Your task to perform on an android device: Go to network settings Image 0: 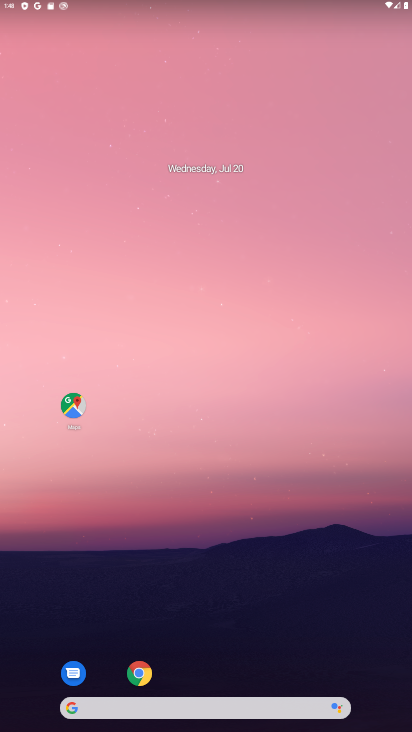
Step 0: drag from (188, 692) to (261, 157)
Your task to perform on an android device: Go to network settings Image 1: 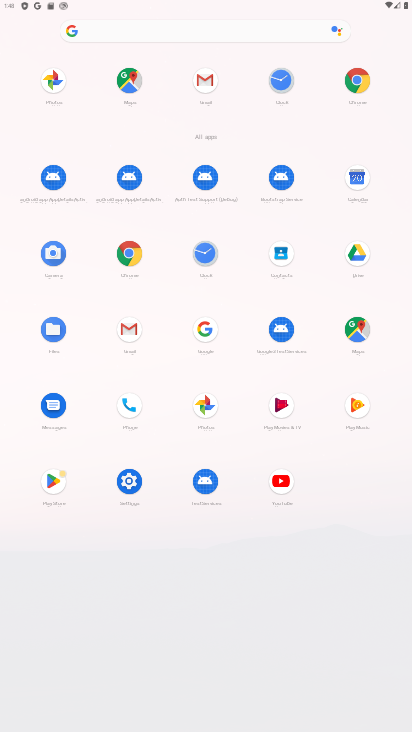
Step 1: click (130, 484)
Your task to perform on an android device: Go to network settings Image 2: 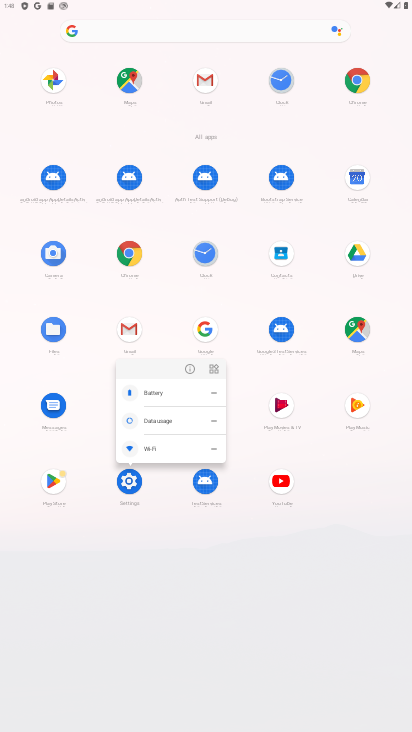
Step 2: click (184, 373)
Your task to perform on an android device: Go to network settings Image 3: 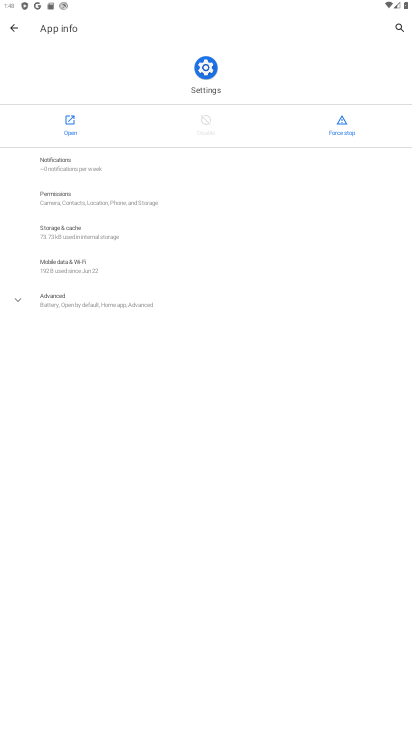
Step 3: click (65, 128)
Your task to perform on an android device: Go to network settings Image 4: 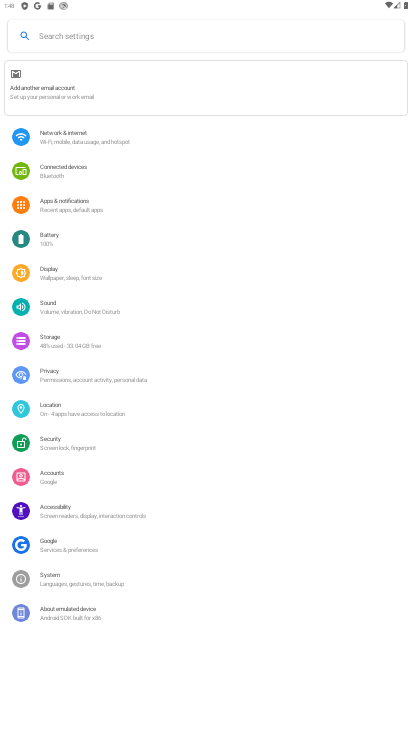
Step 4: click (90, 134)
Your task to perform on an android device: Go to network settings Image 5: 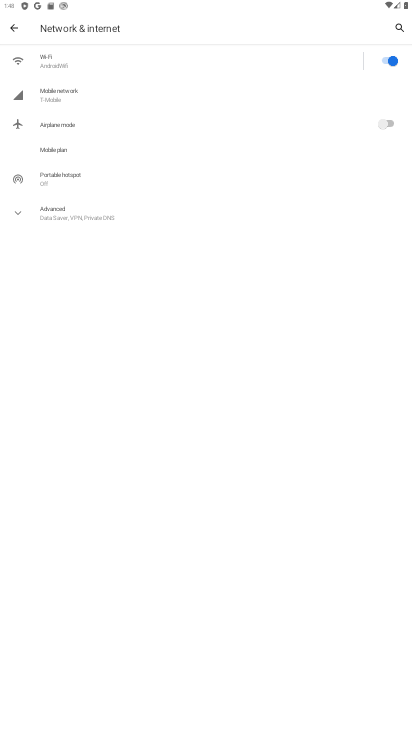
Step 5: task complete